Your task to perform on an android device: turn off data saver in the chrome app Image 0: 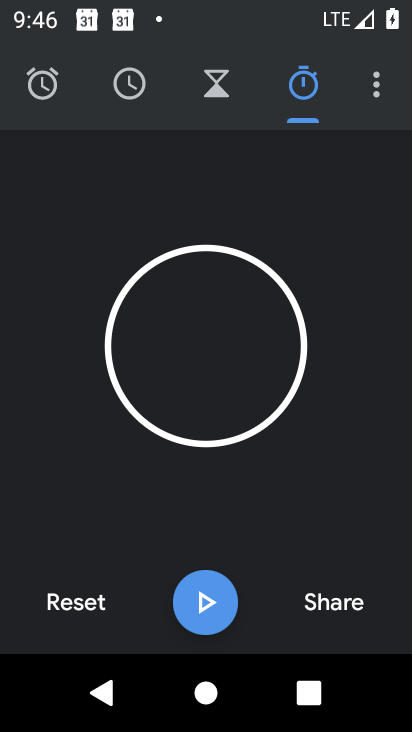
Step 0: press home button
Your task to perform on an android device: turn off data saver in the chrome app Image 1: 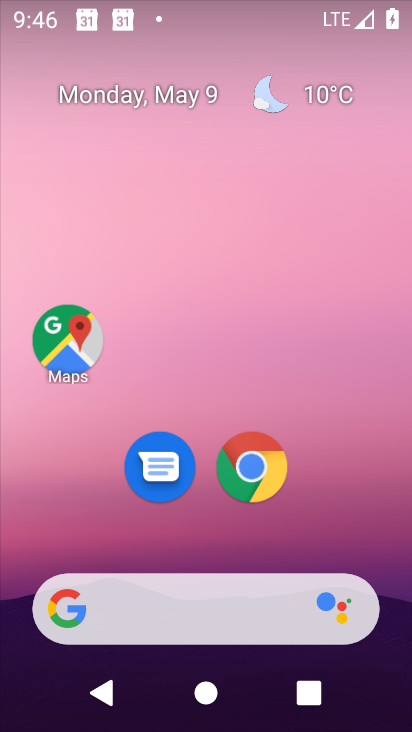
Step 1: click (258, 469)
Your task to perform on an android device: turn off data saver in the chrome app Image 2: 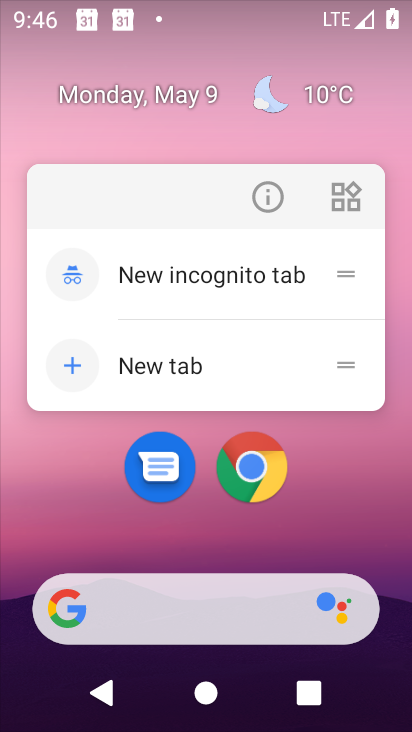
Step 2: click (258, 469)
Your task to perform on an android device: turn off data saver in the chrome app Image 3: 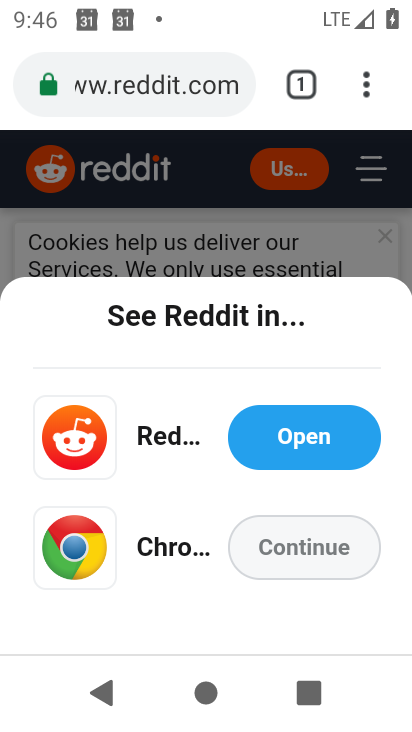
Step 3: click (364, 96)
Your task to perform on an android device: turn off data saver in the chrome app Image 4: 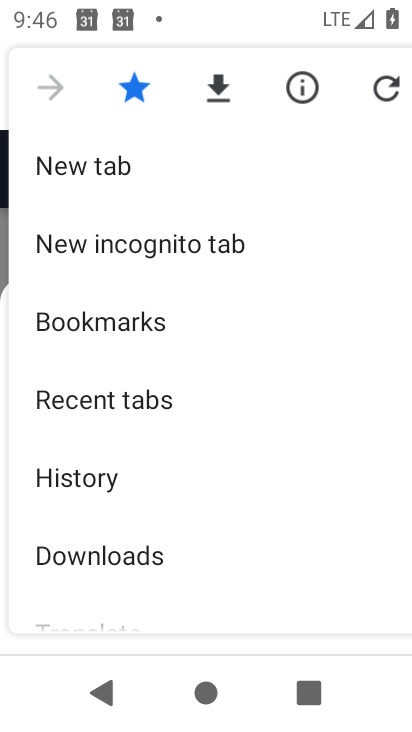
Step 4: drag from (202, 534) to (196, 151)
Your task to perform on an android device: turn off data saver in the chrome app Image 5: 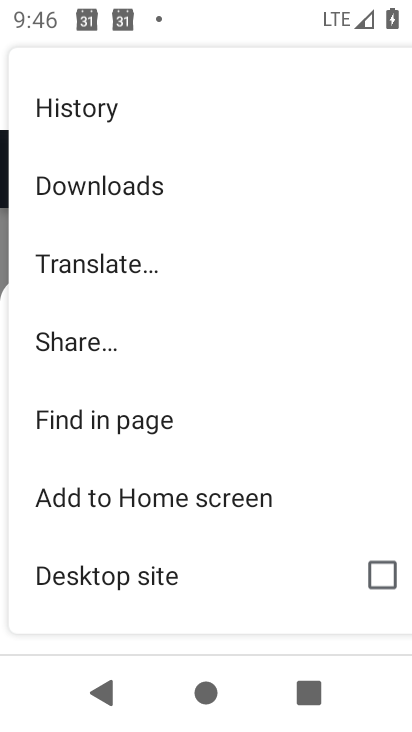
Step 5: drag from (119, 533) to (135, 202)
Your task to perform on an android device: turn off data saver in the chrome app Image 6: 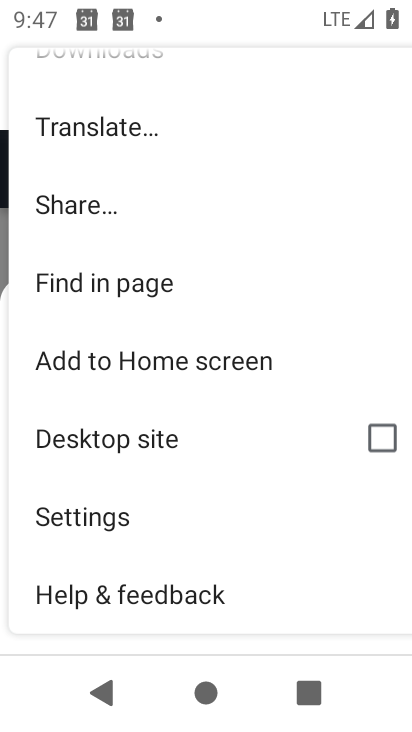
Step 6: click (90, 527)
Your task to perform on an android device: turn off data saver in the chrome app Image 7: 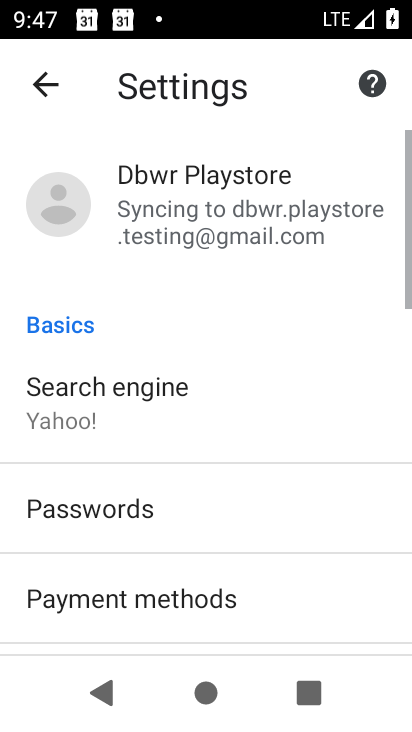
Step 7: drag from (128, 573) to (134, 137)
Your task to perform on an android device: turn off data saver in the chrome app Image 8: 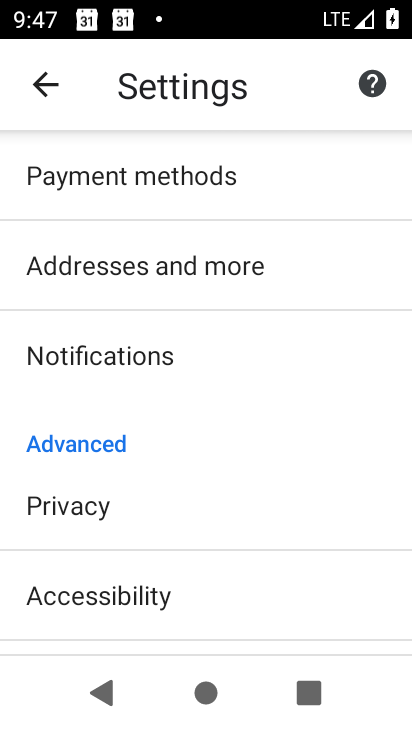
Step 8: drag from (138, 502) to (146, 137)
Your task to perform on an android device: turn off data saver in the chrome app Image 9: 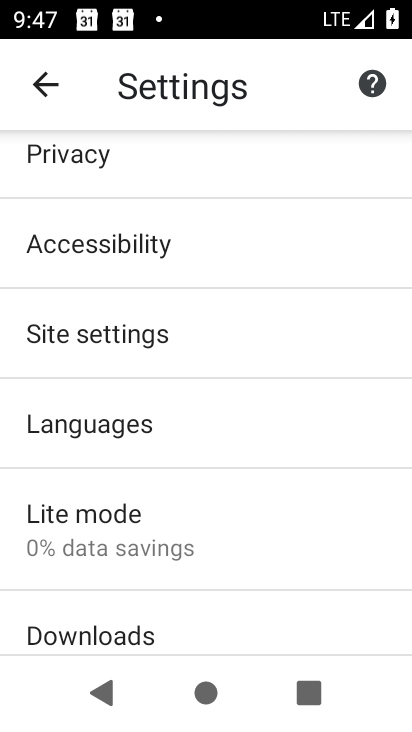
Step 9: click (118, 514)
Your task to perform on an android device: turn off data saver in the chrome app Image 10: 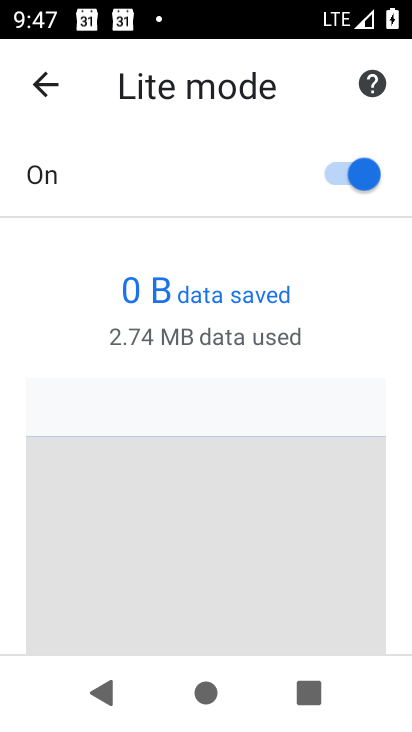
Step 10: click (351, 188)
Your task to perform on an android device: turn off data saver in the chrome app Image 11: 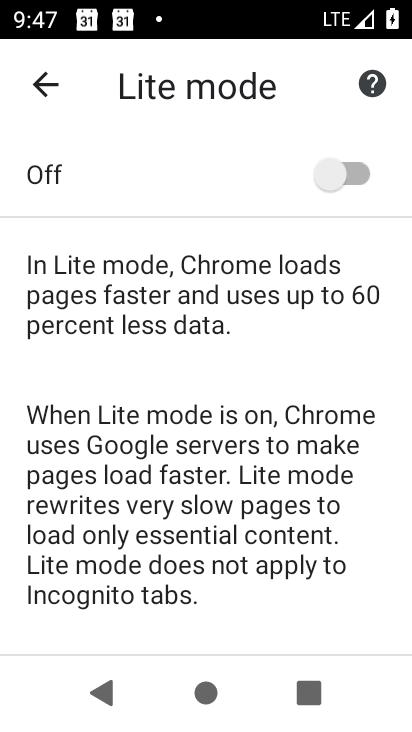
Step 11: task complete